Your task to perform on an android device: Open Reddit.com Image 0: 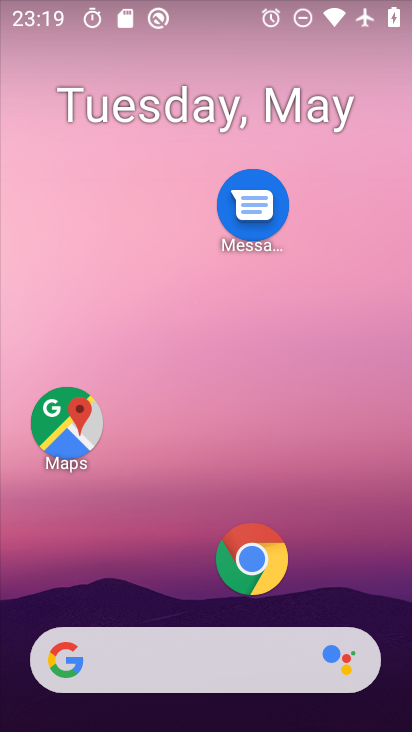
Step 0: click (245, 547)
Your task to perform on an android device: Open Reddit.com Image 1: 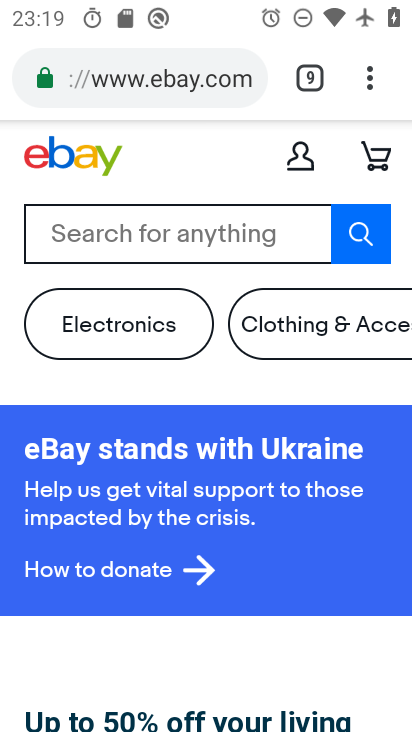
Step 1: click (312, 88)
Your task to perform on an android device: Open Reddit.com Image 2: 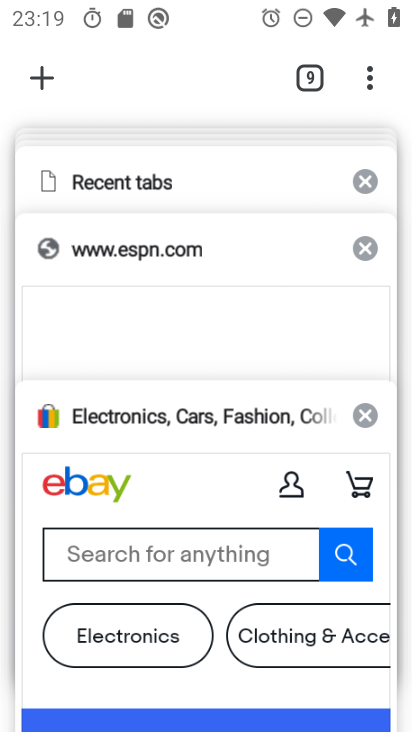
Step 2: click (40, 86)
Your task to perform on an android device: Open Reddit.com Image 3: 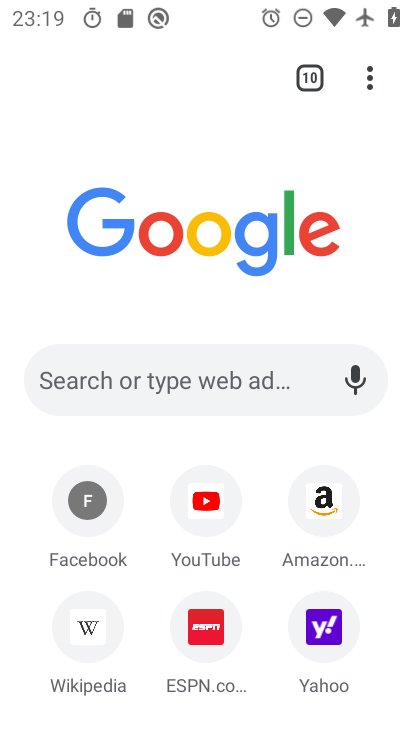
Step 3: click (192, 361)
Your task to perform on an android device: Open Reddit.com Image 4: 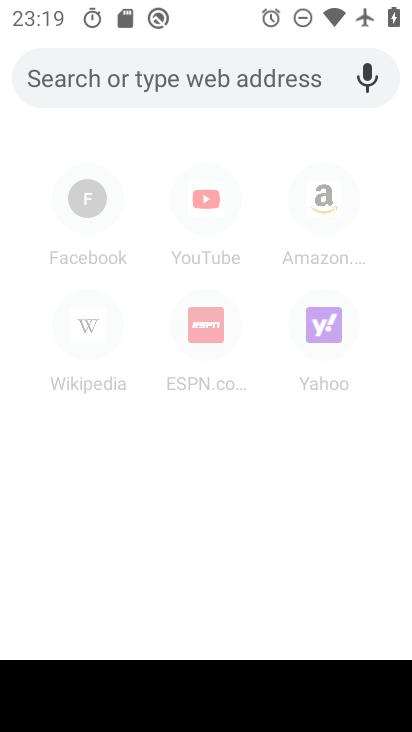
Step 4: type "reddit"
Your task to perform on an android device: Open Reddit.com Image 5: 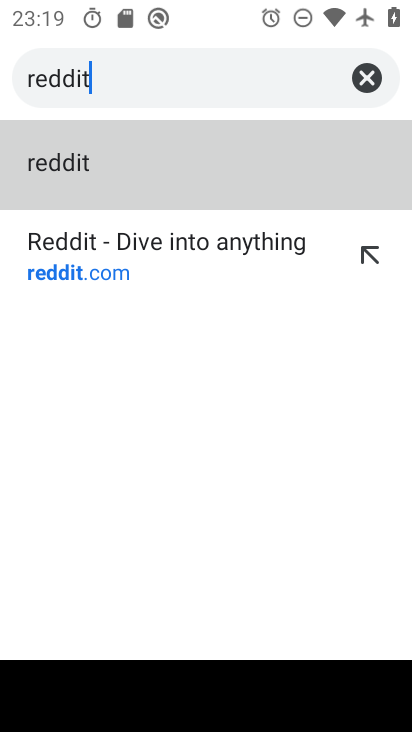
Step 5: click (111, 259)
Your task to perform on an android device: Open Reddit.com Image 6: 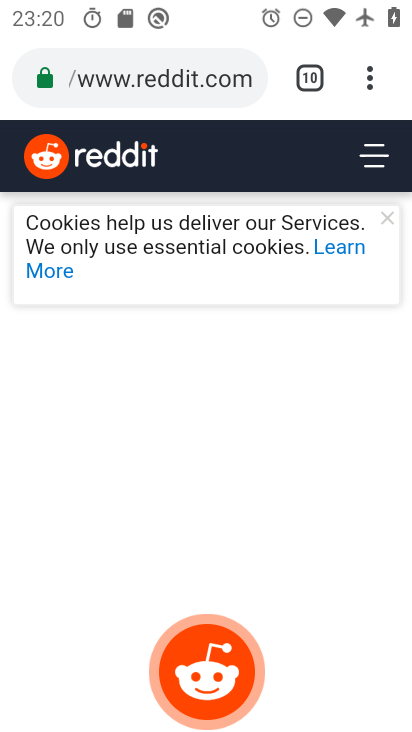
Step 6: task complete